Your task to perform on an android device: Show me recent news Image 0: 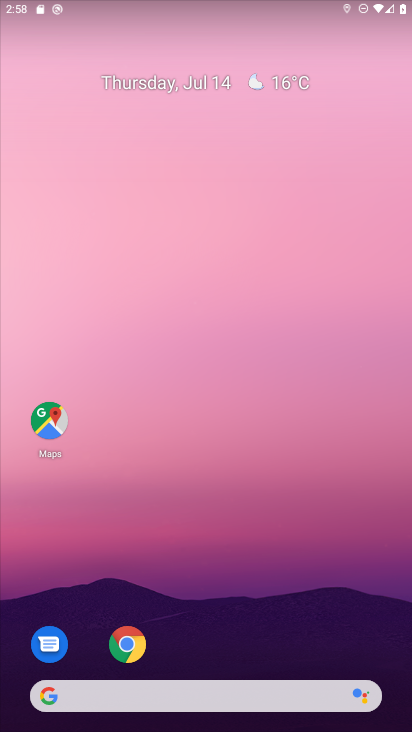
Step 0: drag from (202, 653) to (213, 141)
Your task to perform on an android device: Show me recent news Image 1: 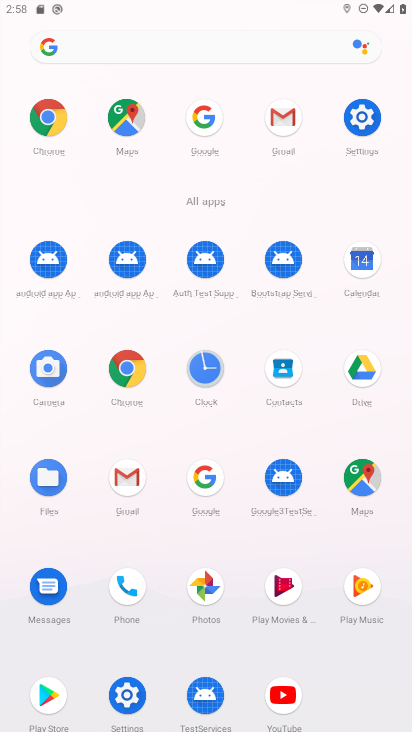
Step 1: click (201, 477)
Your task to perform on an android device: Show me recent news Image 2: 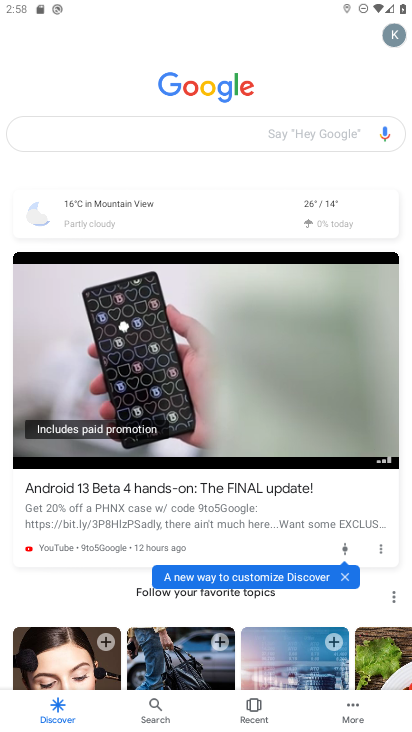
Step 2: click (198, 128)
Your task to perform on an android device: Show me recent news Image 3: 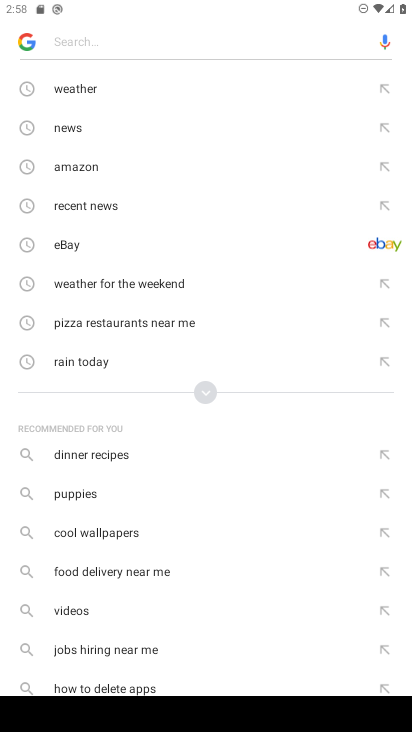
Step 3: click (65, 136)
Your task to perform on an android device: Show me recent news Image 4: 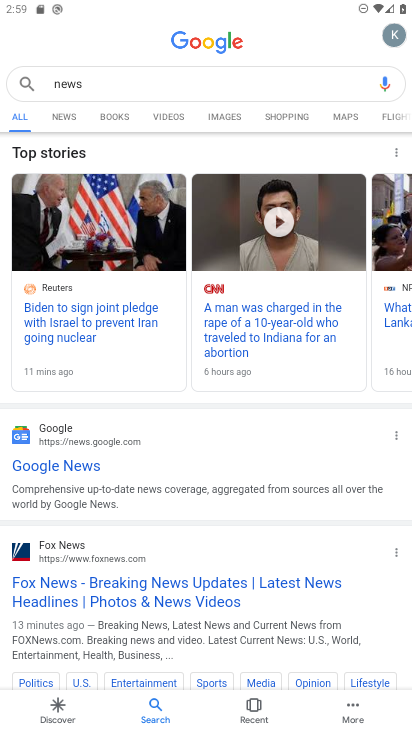
Step 4: click (63, 120)
Your task to perform on an android device: Show me recent news Image 5: 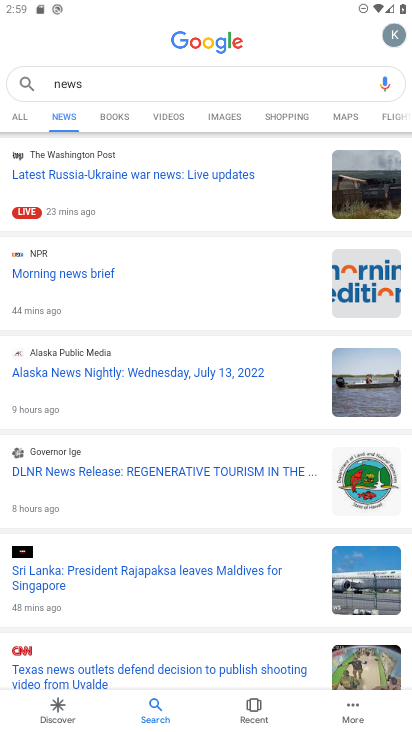
Step 5: task complete